Your task to perform on an android device: Turn off the flashlight Image 0: 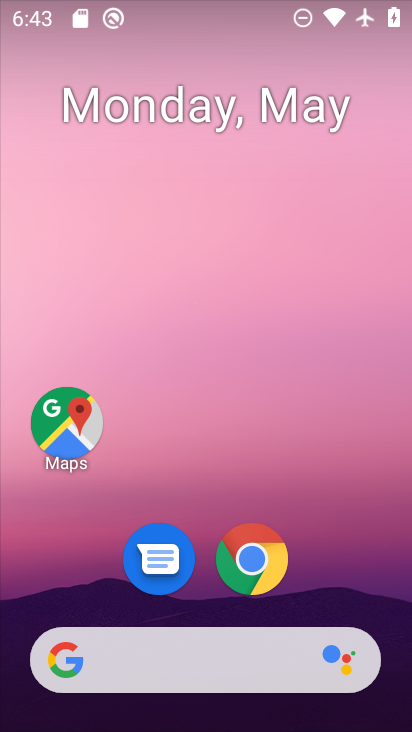
Step 0: drag from (345, 512) to (208, 75)
Your task to perform on an android device: Turn off the flashlight Image 1: 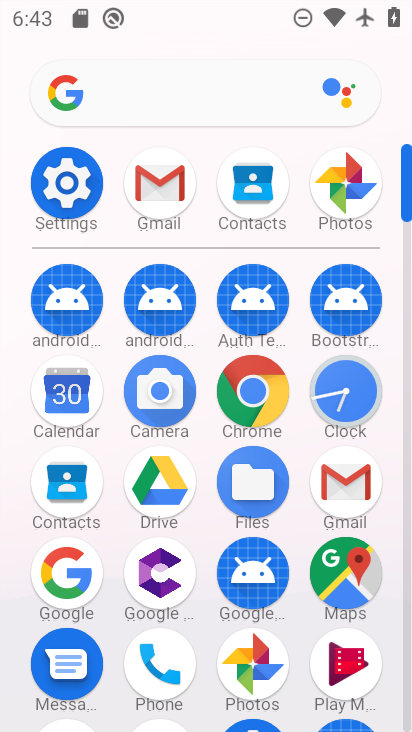
Step 1: click (69, 182)
Your task to perform on an android device: Turn off the flashlight Image 2: 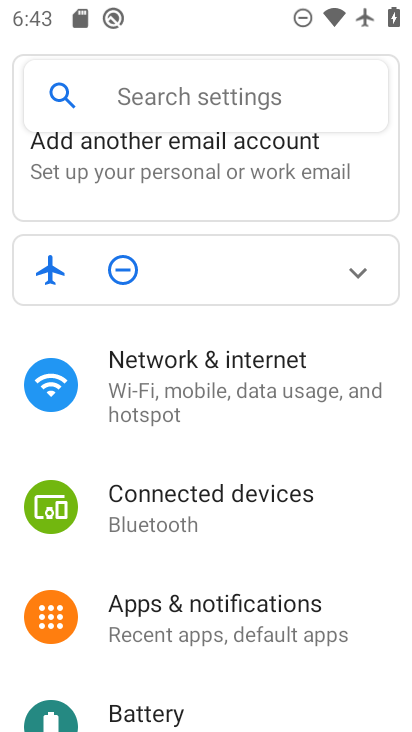
Step 2: drag from (218, 573) to (218, 323)
Your task to perform on an android device: Turn off the flashlight Image 3: 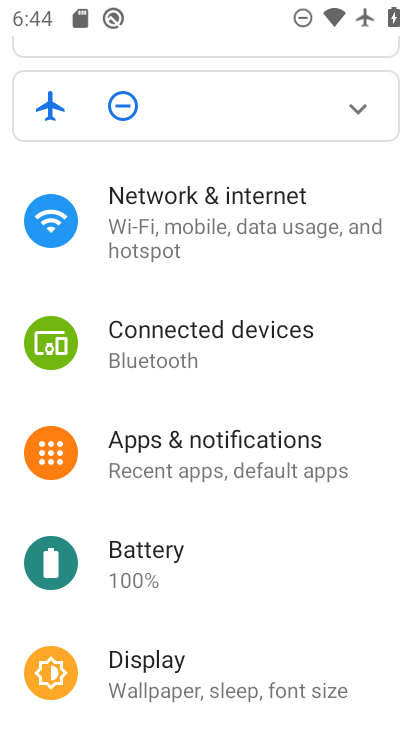
Step 3: click (180, 678)
Your task to perform on an android device: Turn off the flashlight Image 4: 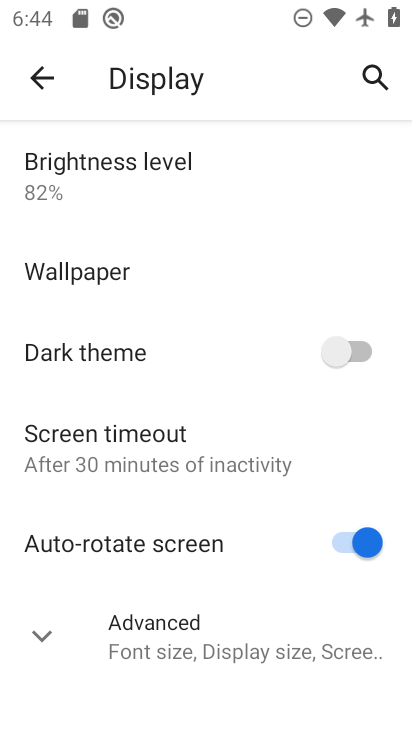
Step 4: task complete